Your task to perform on an android device: Google the capital of Chile Image 0: 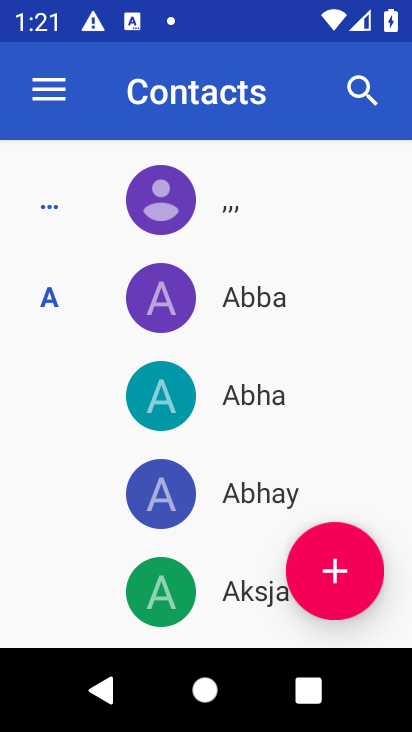
Step 0: press home button
Your task to perform on an android device: Google the capital of Chile Image 1: 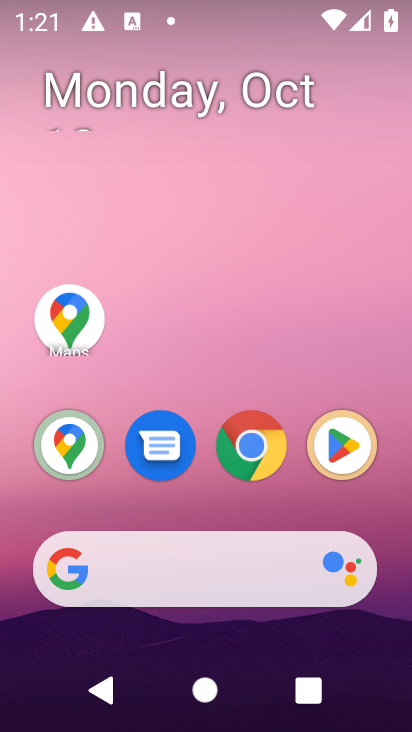
Step 1: click (81, 568)
Your task to perform on an android device: Google the capital of Chile Image 2: 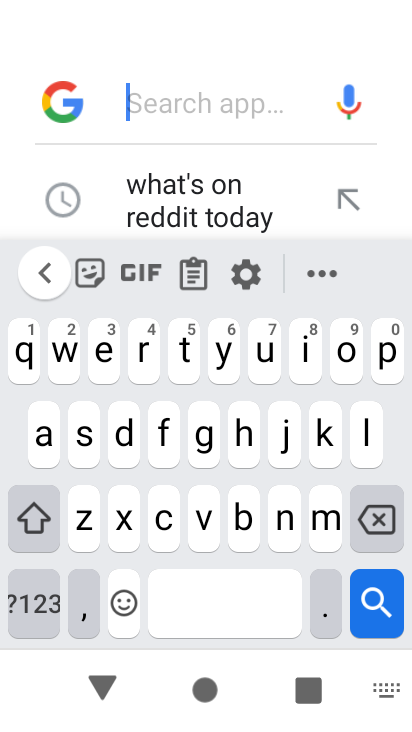
Step 2: type "capital of chile"
Your task to perform on an android device: Google the capital of Chile Image 3: 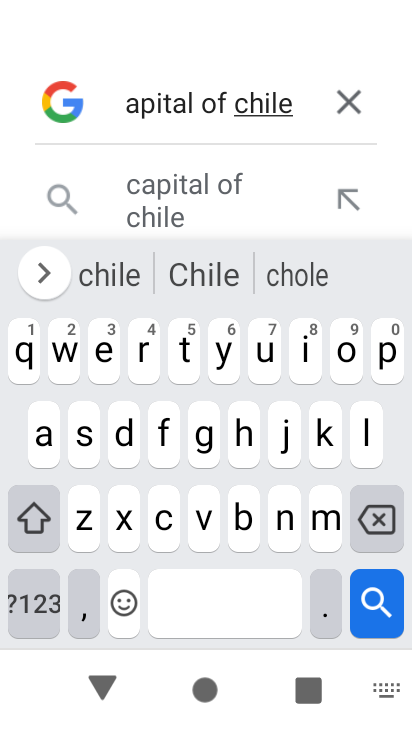
Step 3: click (159, 192)
Your task to perform on an android device: Google the capital of Chile Image 4: 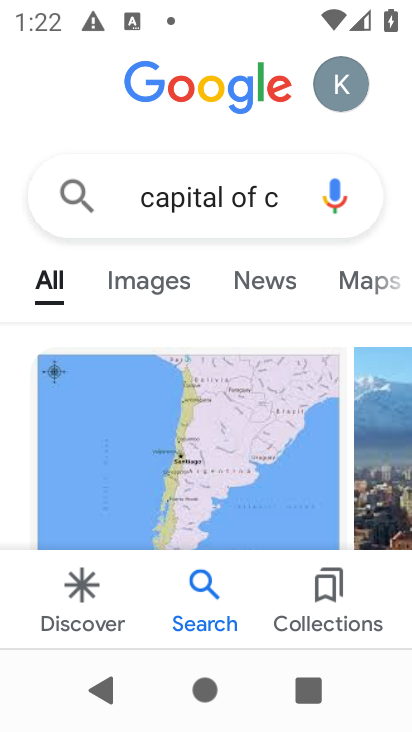
Step 4: task complete